Your task to perform on an android device: Show me recent news Image 0: 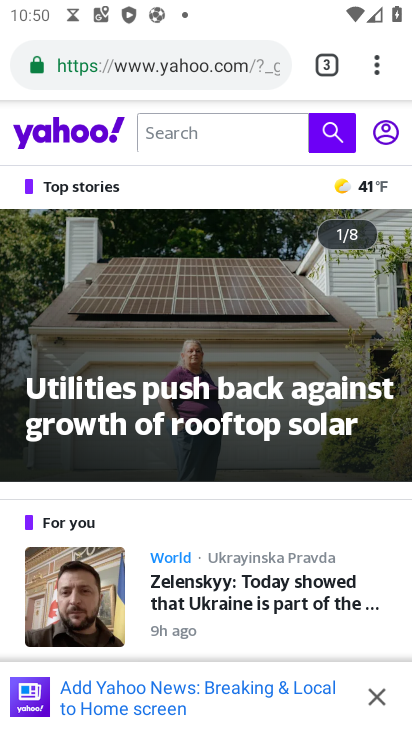
Step 0: click (327, 61)
Your task to perform on an android device: Show me recent news Image 1: 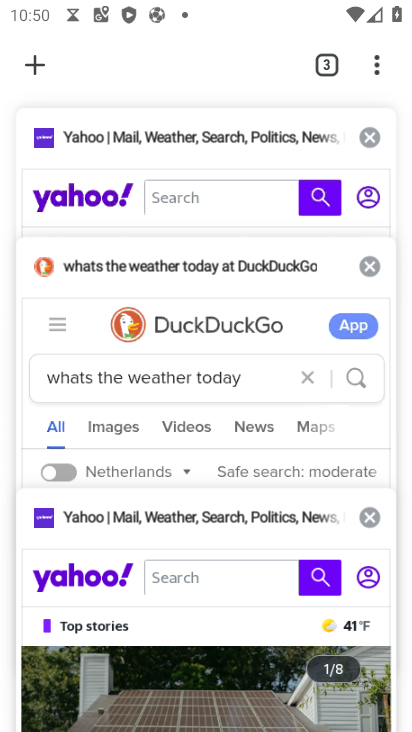
Step 1: click (31, 61)
Your task to perform on an android device: Show me recent news Image 2: 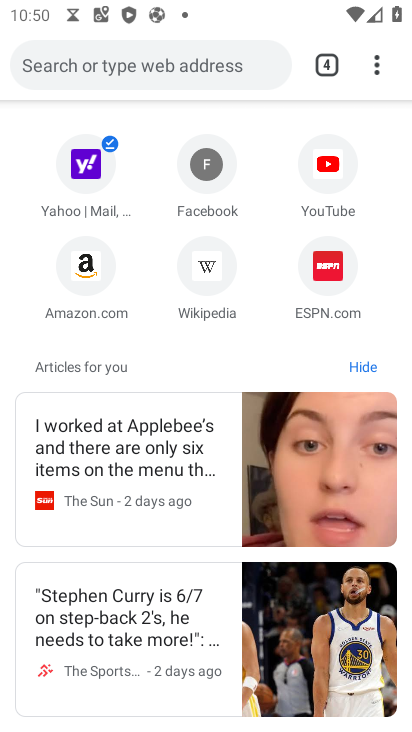
Step 2: click (148, 67)
Your task to perform on an android device: Show me recent news Image 3: 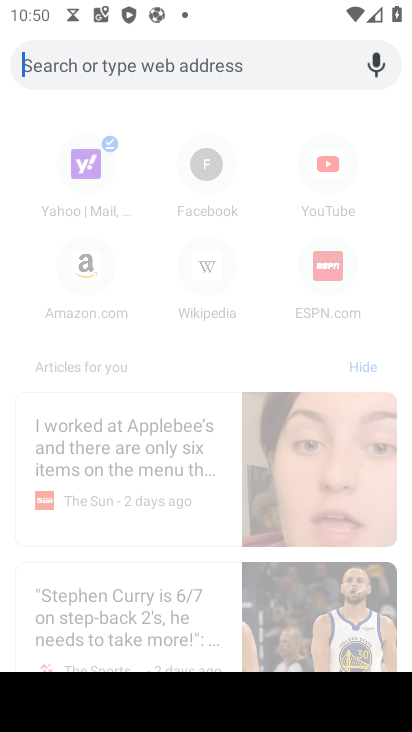
Step 3: type "recent news"
Your task to perform on an android device: Show me recent news Image 4: 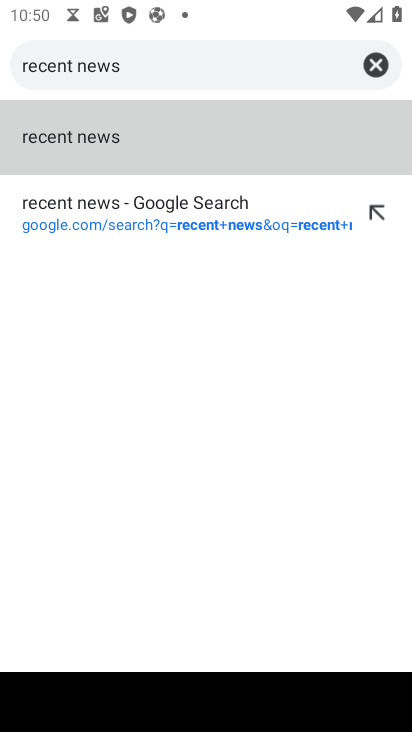
Step 4: click (63, 208)
Your task to perform on an android device: Show me recent news Image 5: 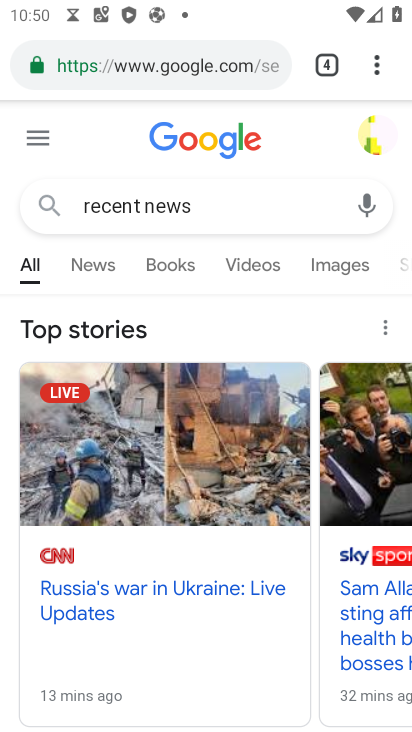
Step 5: click (74, 267)
Your task to perform on an android device: Show me recent news Image 6: 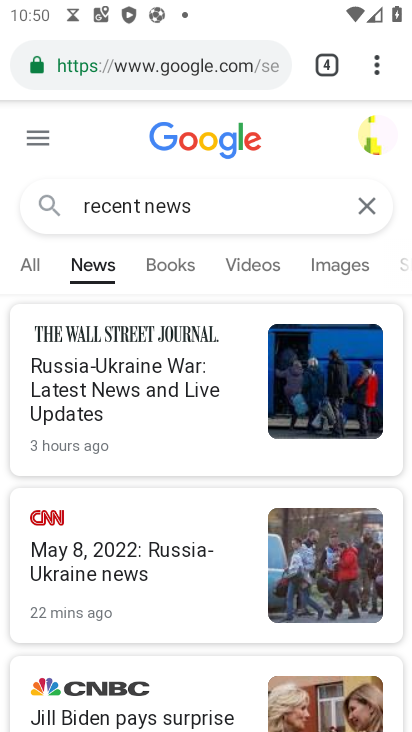
Step 6: task complete